Your task to perform on an android device: What is the recent news? Image 0: 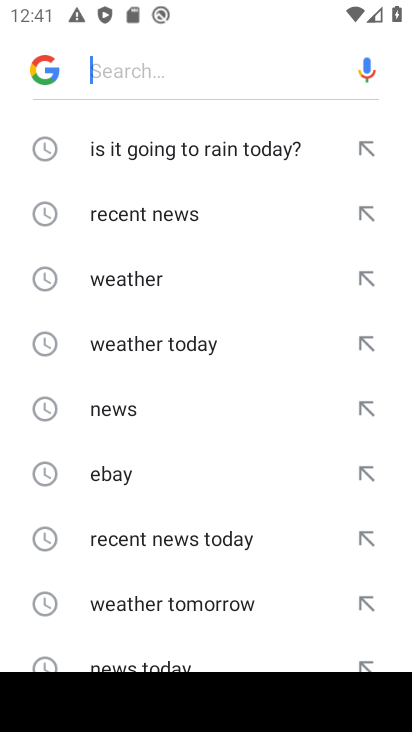
Step 0: click (172, 209)
Your task to perform on an android device: What is the recent news? Image 1: 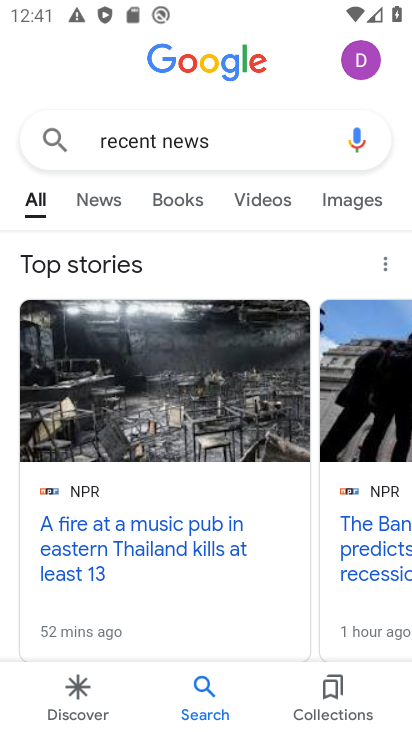
Step 1: task complete